Your task to perform on an android device: change the clock display to show seconds Image 0: 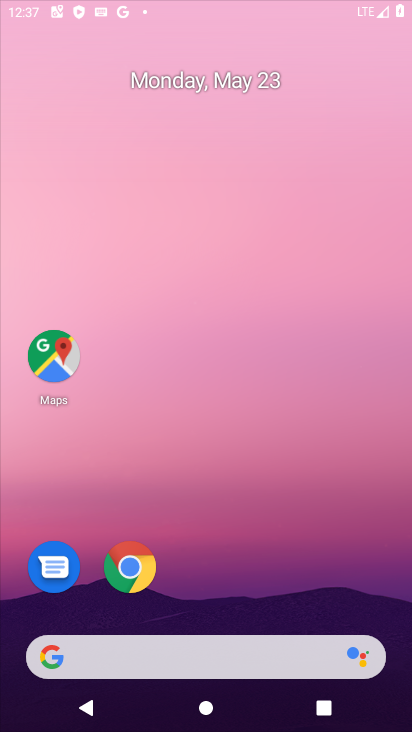
Step 0: click (276, 125)
Your task to perform on an android device: change the clock display to show seconds Image 1: 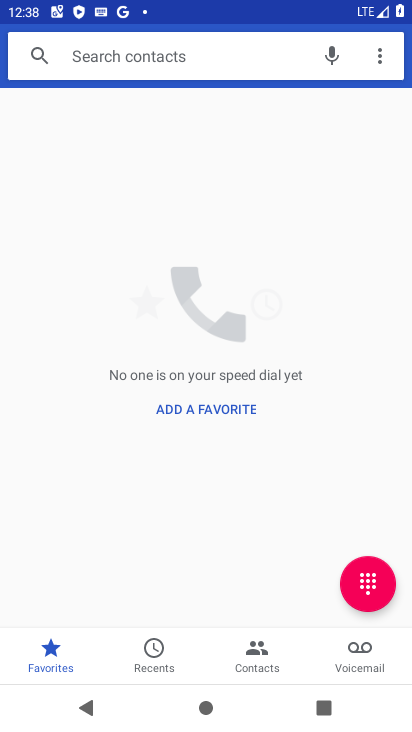
Step 1: press home button
Your task to perform on an android device: change the clock display to show seconds Image 2: 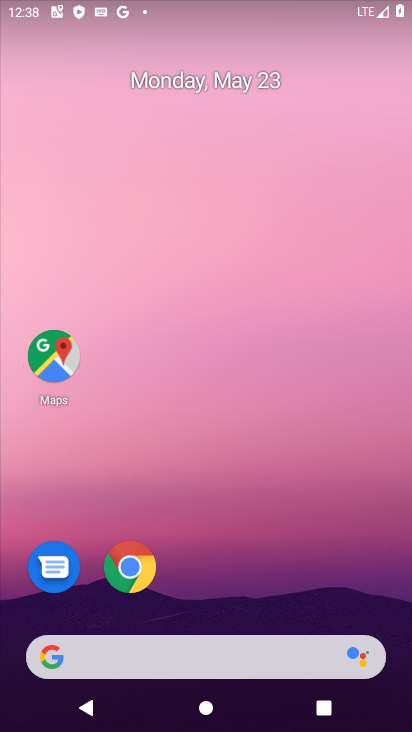
Step 2: drag from (240, 609) to (151, 89)
Your task to perform on an android device: change the clock display to show seconds Image 3: 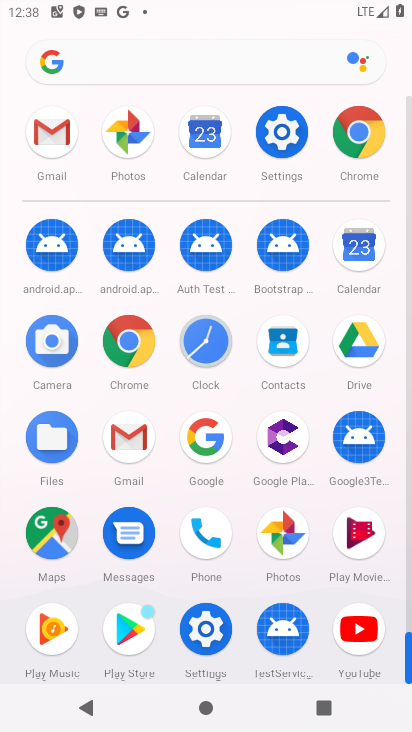
Step 3: click (215, 326)
Your task to perform on an android device: change the clock display to show seconds Image 4: 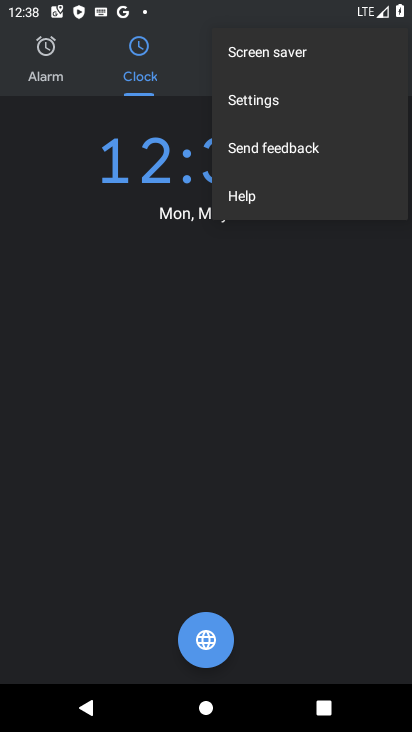
Step 4: click (313, 114)
Your task to perform on an android device: change the clock display to show seconds Image 5: 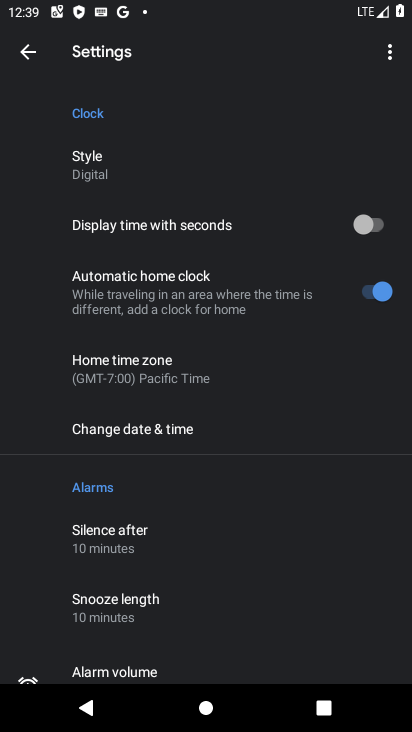
Step 5: click (391, 232)
Your task to perform on an android device: change the clock display to show seconds Image 6: 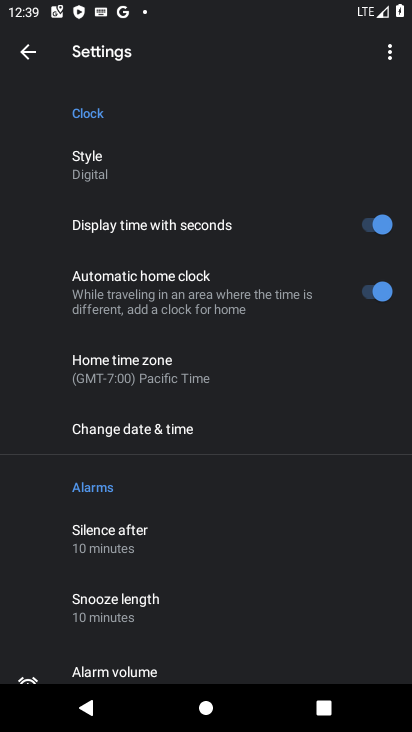
Step 6: task complete